Your task to perform on an android device: Show me recent news Image 0: 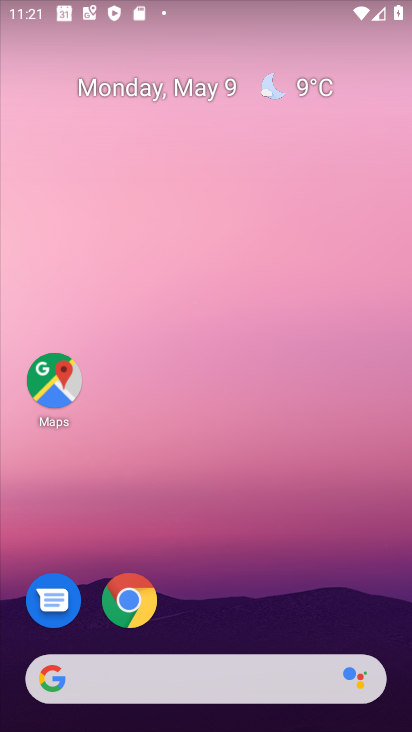
Step 0: press home button
Your task to perform on an android device: Show me recent news Image 1: 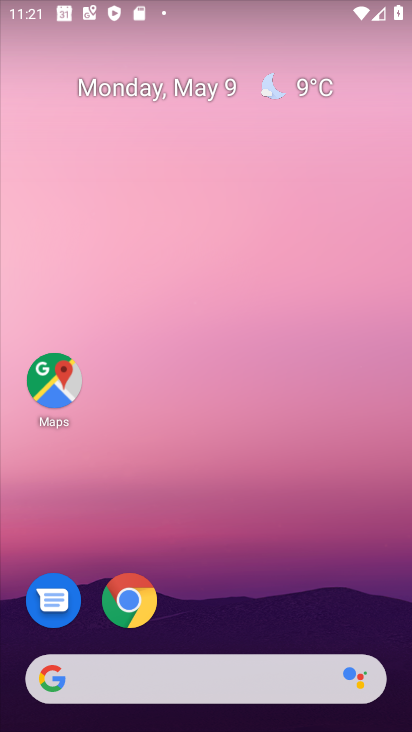
Step 1: drag from (240, 529) to (256, 213)
Your task to perform on an android device: Show me recent news Image 2: 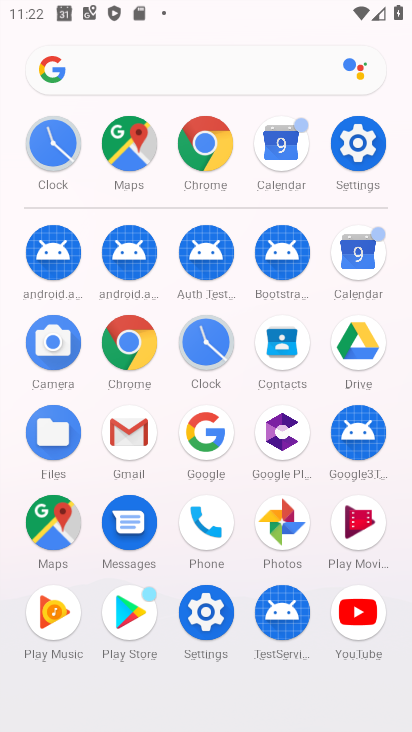
Step 2: click (128, 341)
Your task to perform on an android device: Show me recent news Image 3: 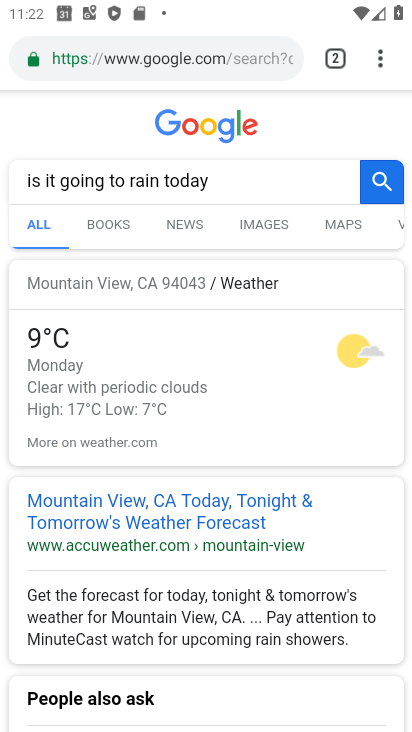
Step 3: click (222, 54)
Your task to perform on an android device: Show me recent news Image 4: 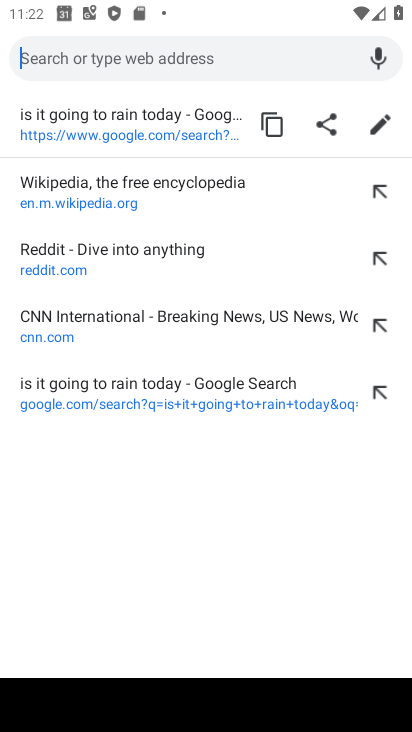
Step 4: click (142, 62)
Your task to perform on an android device: Show me recent news Image 5: 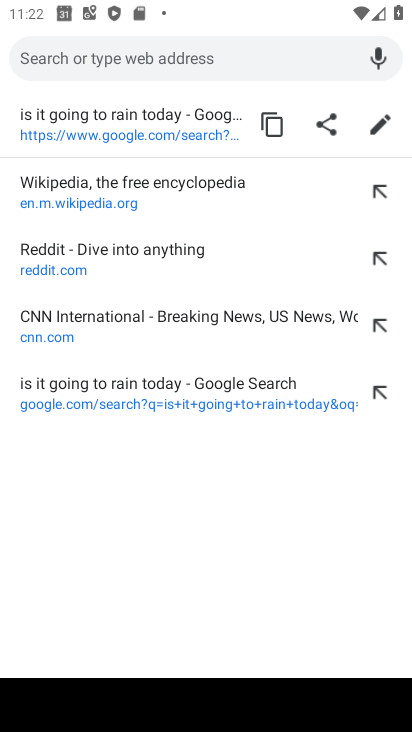
Step 5: type "recent news"
Your task to perform on an android device: Show me recent news Image 6: 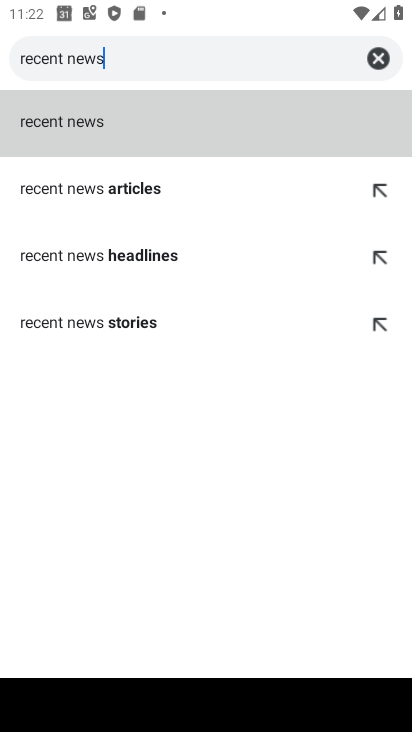
Step 6: click (137, 127)
Your task to perform on an android device: Show me recent news Image 7: 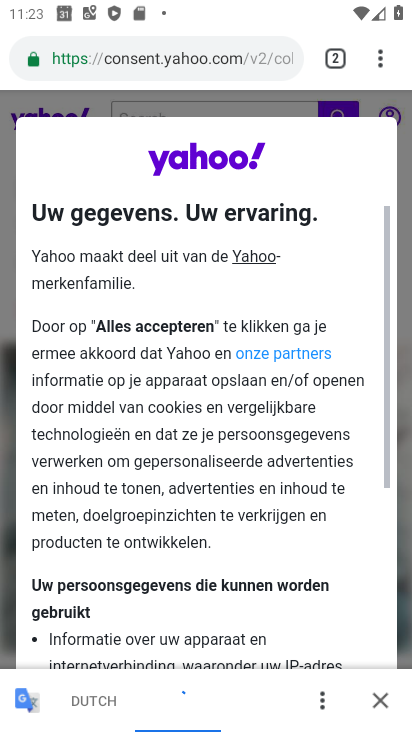
Step 7: drag from (311, 571) to (312, 214)
Your task to perform on an android device: Show me recent news Image 8: 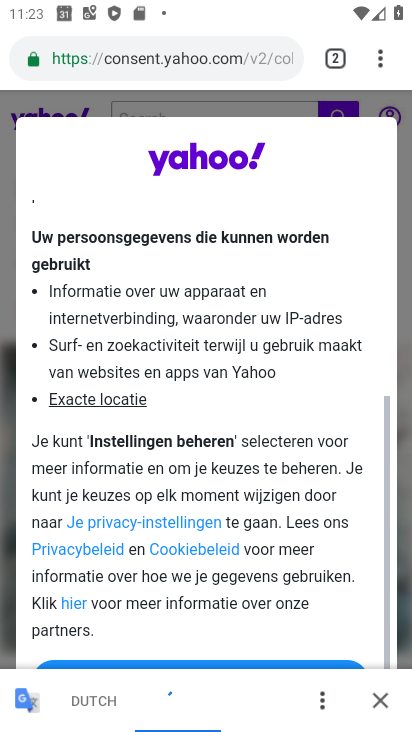
Step 8: drag from (292, 620) to (304, 197)
Your task to perform on an android device: Show me recent news Image 9: 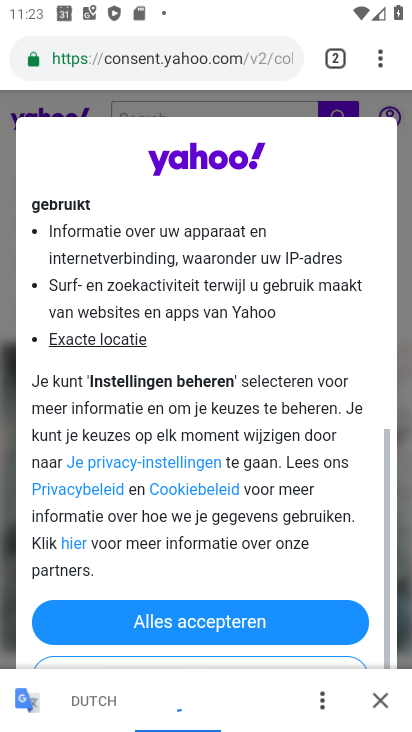
Step 9: click (248, 641)
Your task to perform on an android device: Show me recent news Image 10: 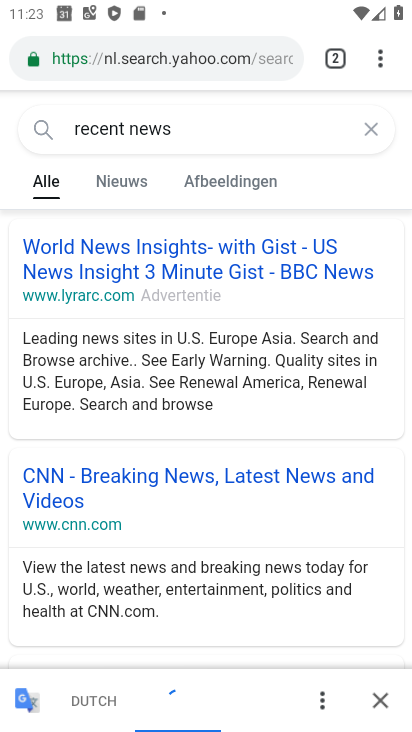
Step 10: click (388, 704)
Your task to perform on an android device: Show me recent news Image 11: 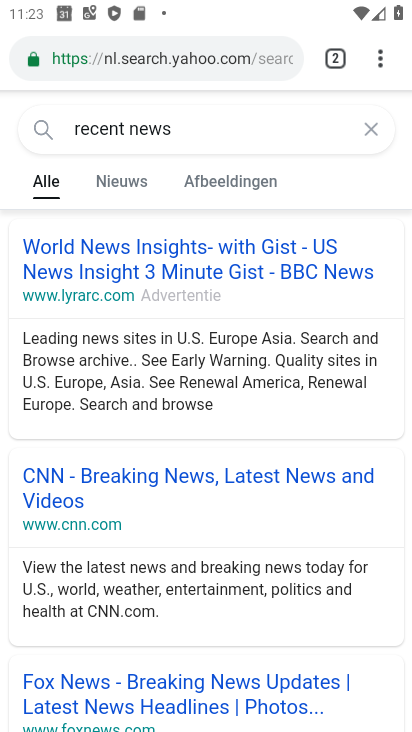
Step 11: task complete